Your task to perform on an android device: Open CNN.com Image 0: 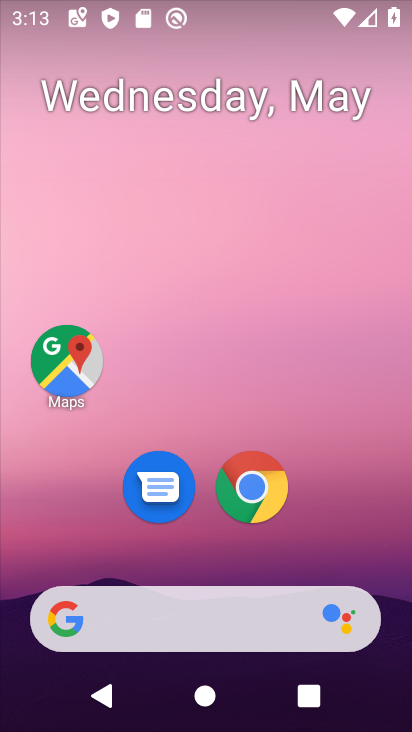
Step 0: drag from (345, 514) to (232, 33)
Your task to perform on an android device: Open CNN.com Image 1: 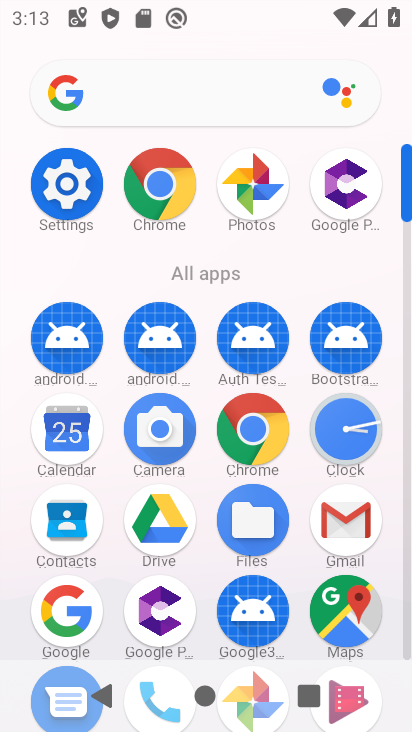
Step 1: click (159, 182)
Your task to perform on an android device: Open CNN.com Image 2: 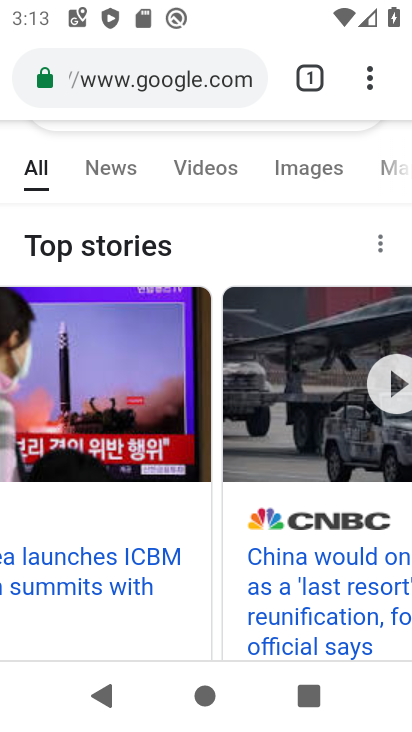
Step 2: click (176, 72)
Your task to perform on an android device: Open CNN.com Image 3: 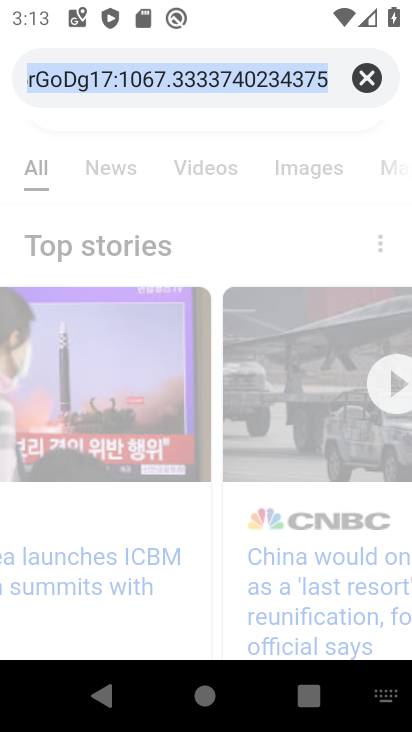
Step 3: click (359, 72)
Your task to perform on an android device: Open CNN.com Image 4: 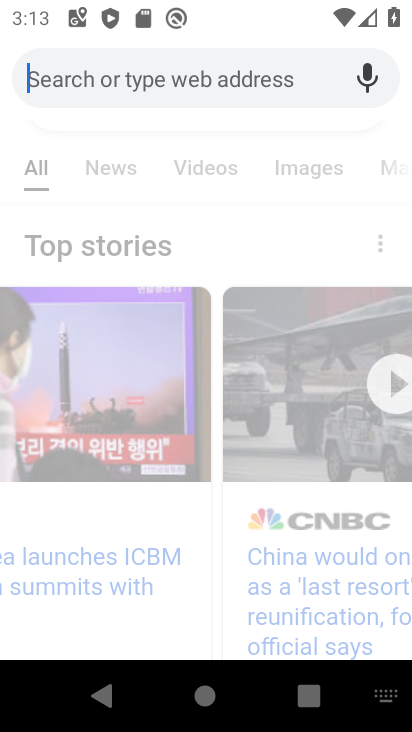
Step 4: type "CNN.com"
Your task to perform on an android device: Open CNN.com Image 5: 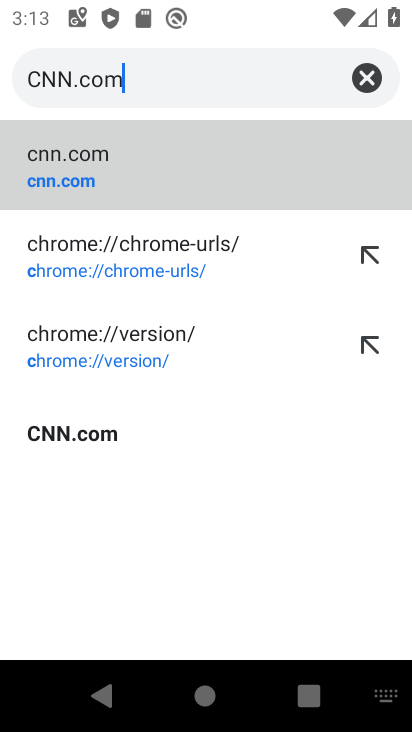
Step 5: type ""
Your task to perform on an android device: Open CNN.com Image 6: 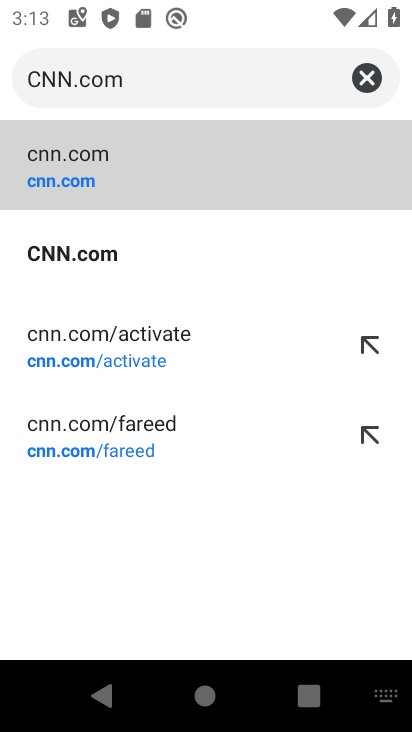
Step 6: click (132, 155)
Your task to perform on an android device: Open CNN.com Image 7: 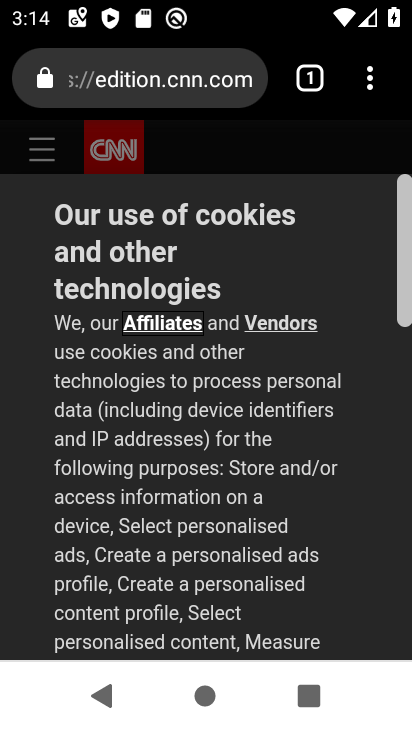
Step 7: task complete